Your task to perform on an android device: turn on translation in the chrome app Image 0: 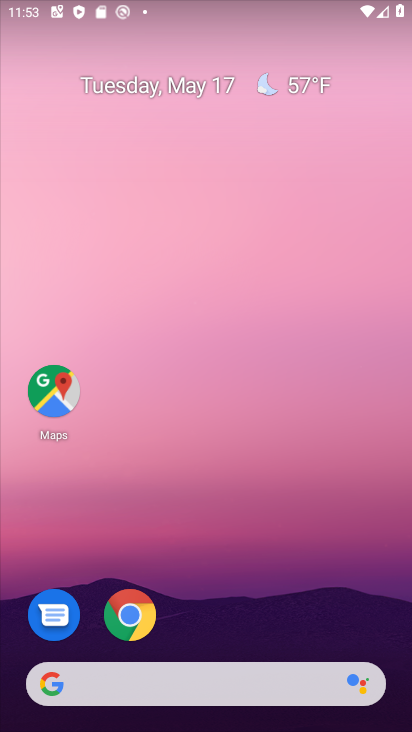
Step 0: drag from (283, 612) to (263, 36)
Your task to perform on an android device: turn on translation in the chrome app Image 1: 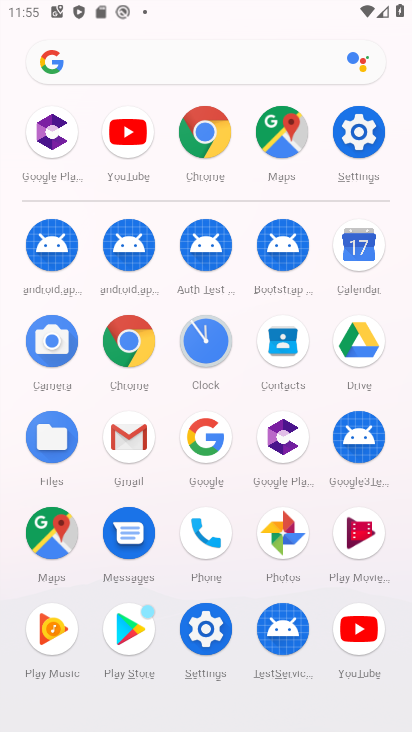
Step 1: click (136, 338)
Your task to perform on an android device: turn on translation in the chrome app Image 2: 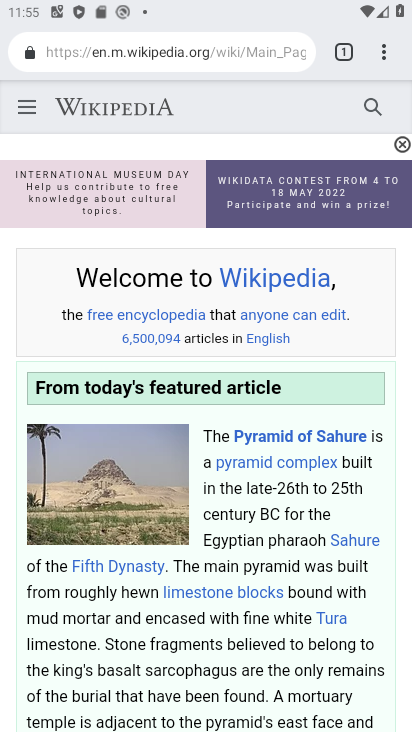
Step 2: press back button
Your task to perform on an android device: turn on translation in the chrome app Image 3: 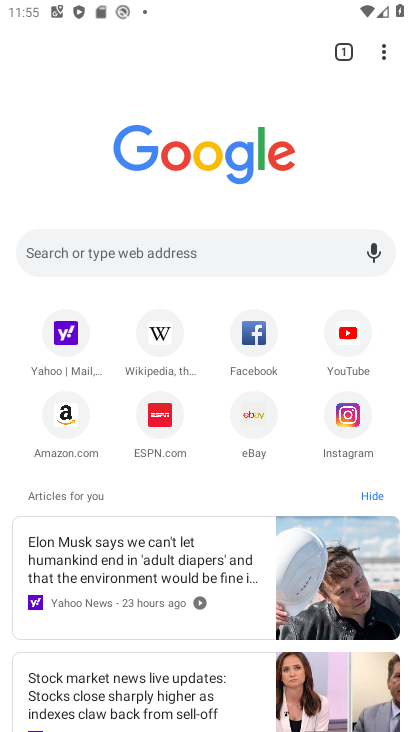
Step 3: click (386, 52)
Your task to perform on an android device: turn on translation in the chrome app Image 4: 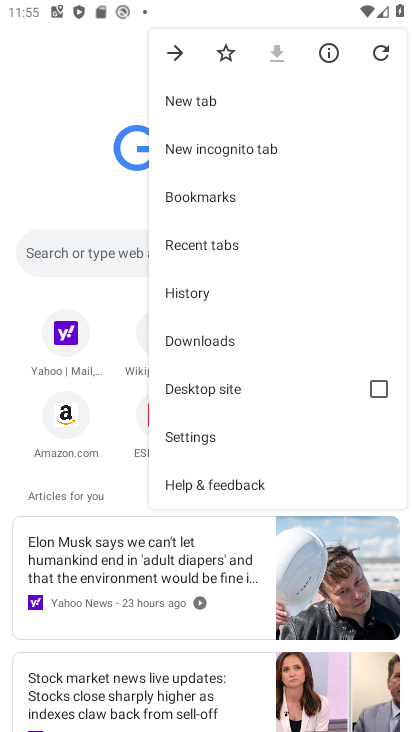
Step 4: click (262, 434)
Your task to perform on an android device: turn on translation in the chrome app Image 5: 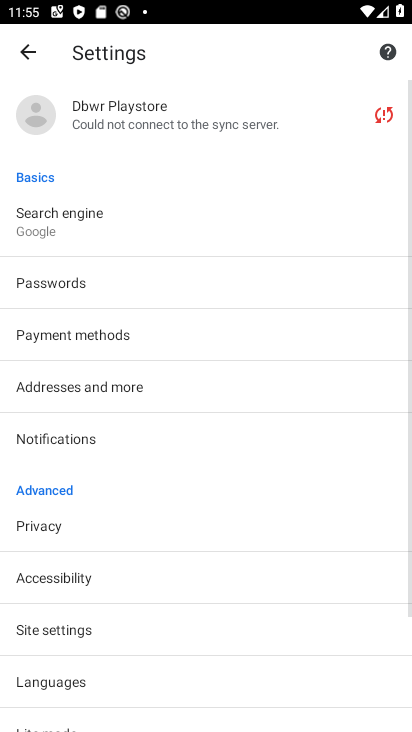
Step 5: click (138, 679)
Your task to perform on an android device: turn on translation in the chrome app Image 6: 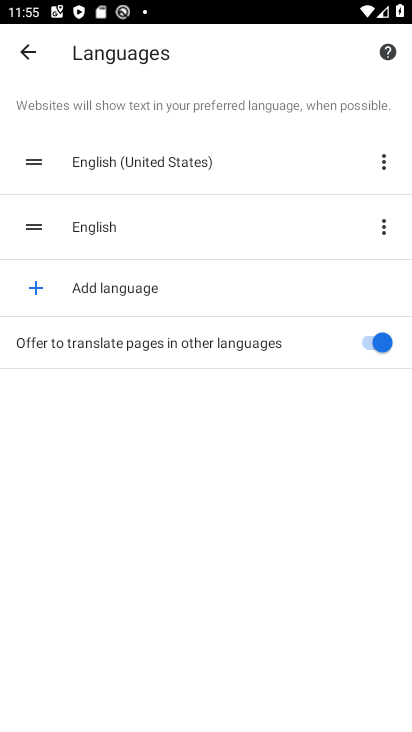
Step 6: task complete